Your task to perform on an android device: turn on showing notifications on the lock screen Image 0: 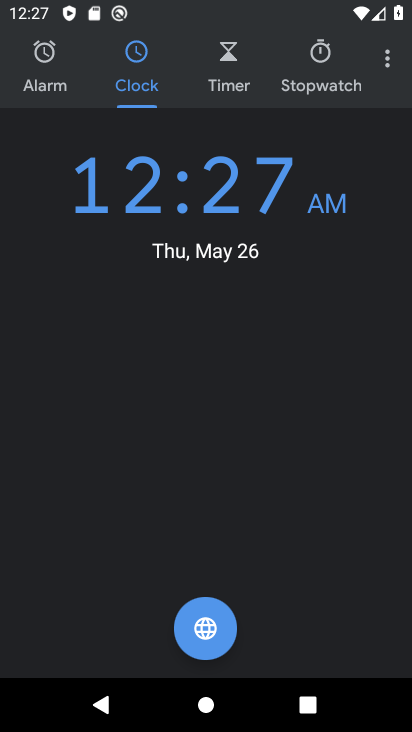
Step 0: press home button
Your task to perform on an android device: turn on showing notifications on the lock screen Image 1: 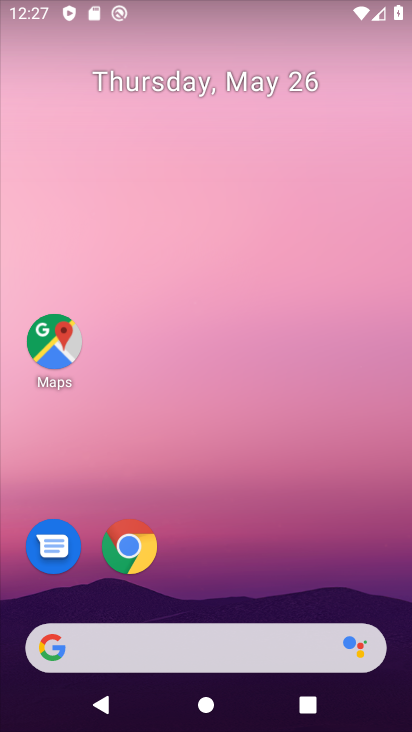
Step 1: drag from (326, 586) to (290, 133)
Your task to perform on an android device: turn on showing notifications on the lock screen Image 2: 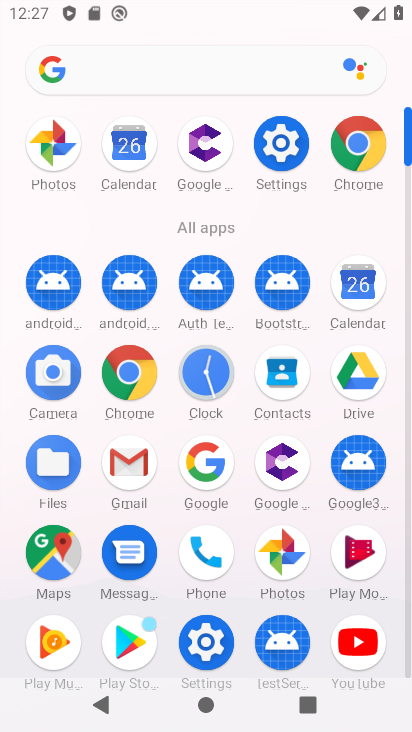
Step 2: click (268, 140)
Your task to perform on an android device: turn on showing notifications on the lock screen Image 3: 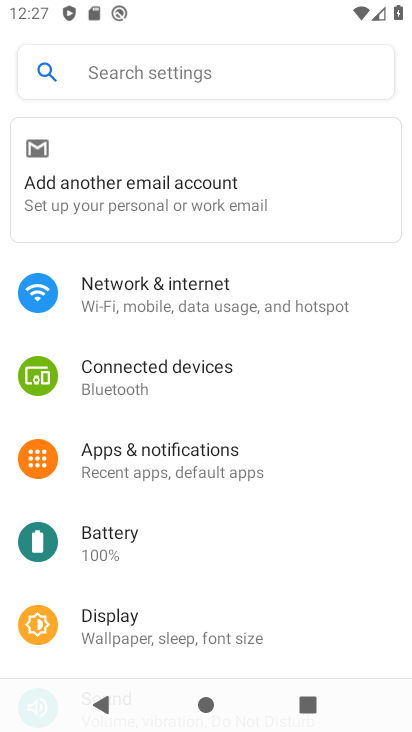
Step 3: drag from (218, 542) to (208, 356)
Your task to perform on an android device: turn on showing notifications on the lock screen Image 4: 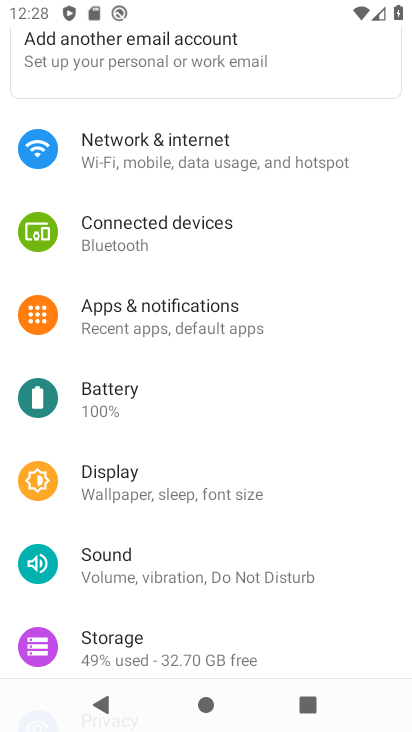
Step 4: click (205, 313)
Your task to perform on an android device: turn on showing notifications on the lock screen Image 5: 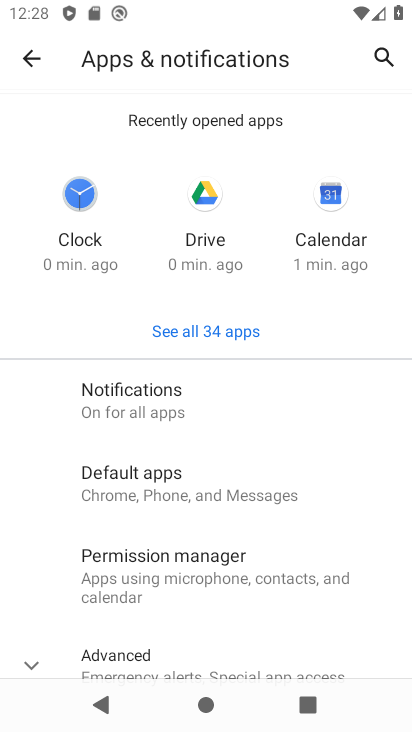
Step 5: click (110, 404)
Your task to perform on an android device: turn on showing notifications on the lock screen Image 6: 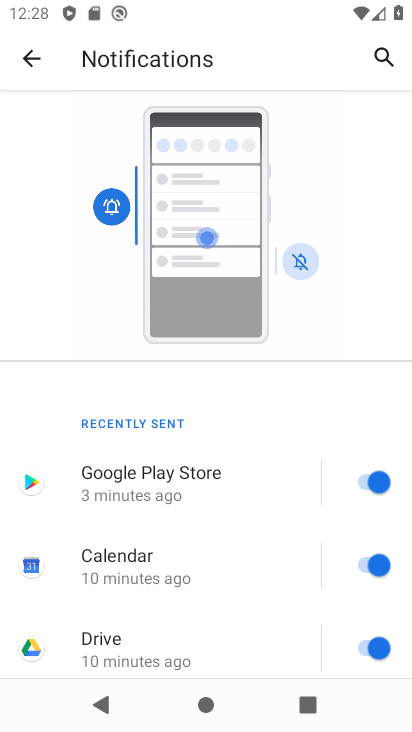
Step 6: drag from (202, 501) to (174, 111)
Your task to perform on an android device: turn on showing notifications on the lock screen Image 7: 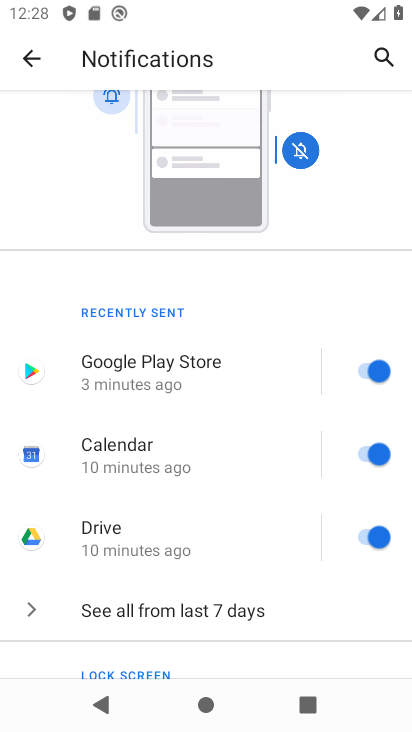
Step 7: drag from (172, 596) to (210, 239)
Your task to perform on an android device: turn on showing notifications on the lock screen Image 8: 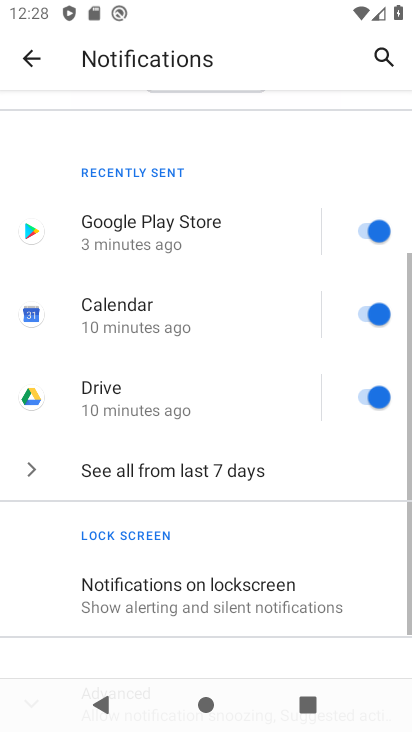
Step 8: drag from (184, 548) to (164, 291)
Your task to perform on an android device: turn on showing notifications on the lock screen Image 9: 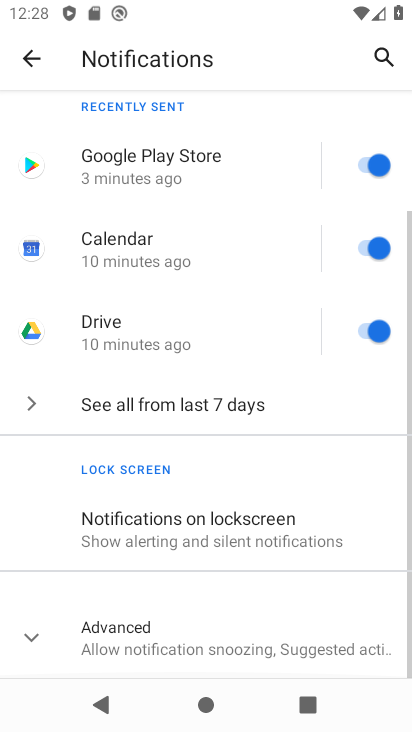
Step 9: click (159, 610)
Your task to perform on an android device: turn on showing notifications on the lock screen Image 10: 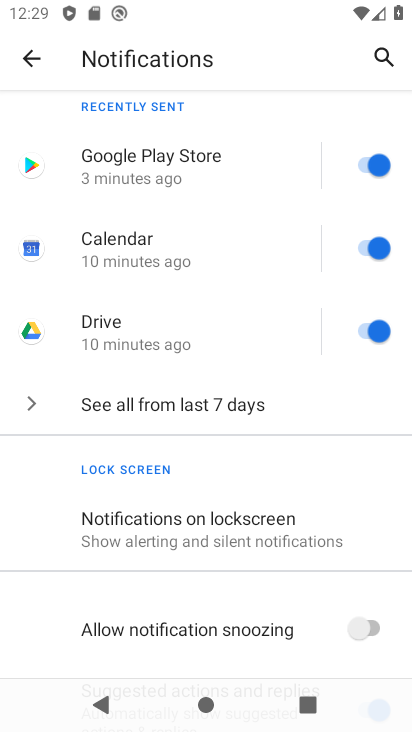
Step 10: click (186, 535)
Your task to perform on an android device: turn on showing notifications on the lock screen Image 11: 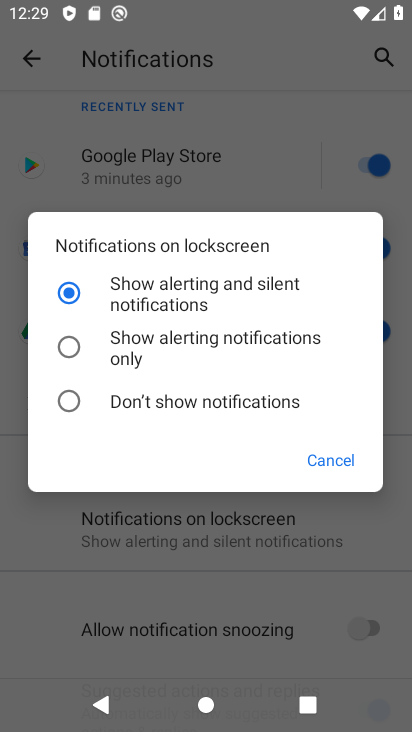
Step 11: click (127, 351)
Your task to perform on an android device: turn on showing notifications on the lock screen Image 12: 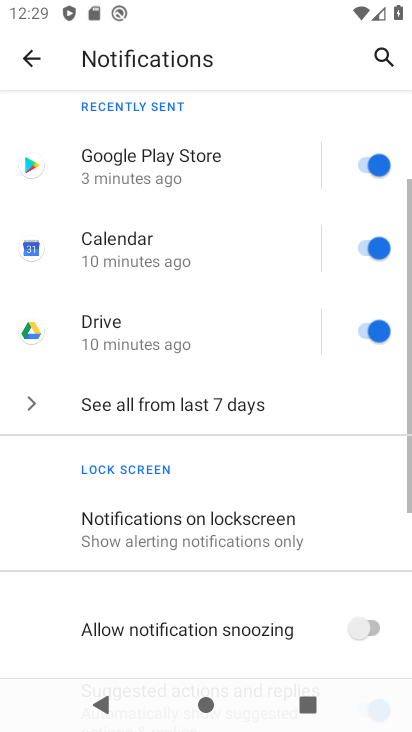
Step 12: task complete